Your task to perform on an android device: delete the emails in spam in the gmail app Image 0: 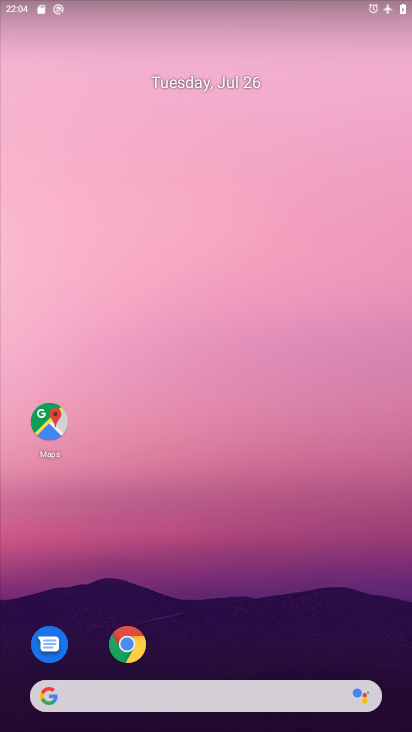
Step 0: drag from (287, 616) to (280, 184)
Your task to perform on an android device: delete the emails in spam in the gmail app Image 1: 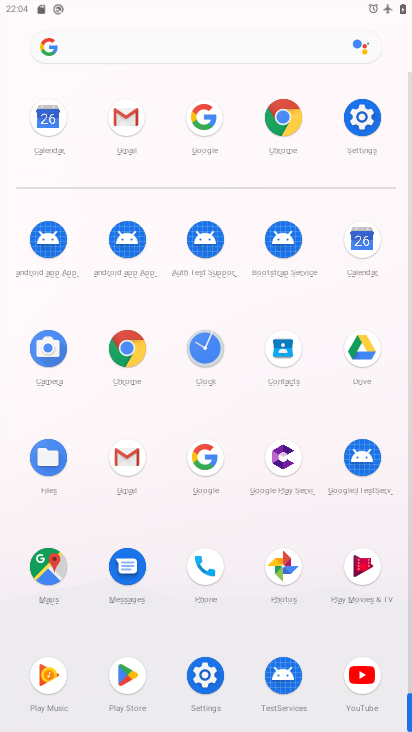
Step 1: click (122, 452)
Your task to perform on an android device: delete the emails in spam in the gmail app Image 2: 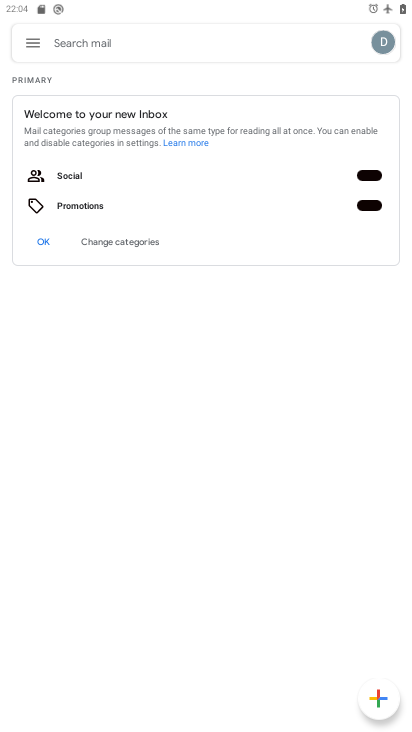
Step 2: click (29, 38)
Your task to perform on an android device: delete the emails in spam in the gmail app Image 3: 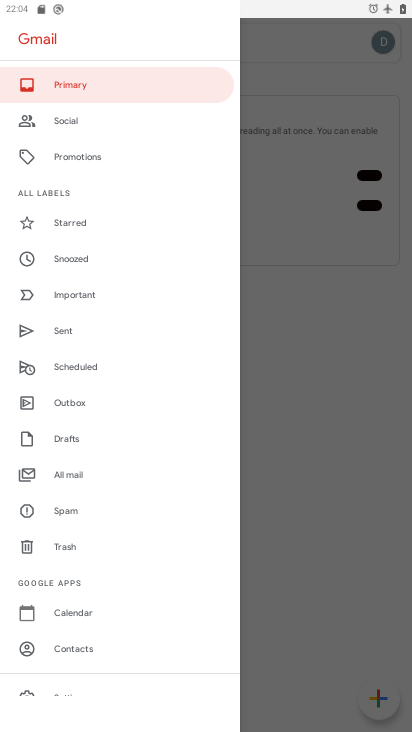
Step 3: click (68, 500)
Your task to perform on an android device: delete the emails in spam in the gmail app Image 4: 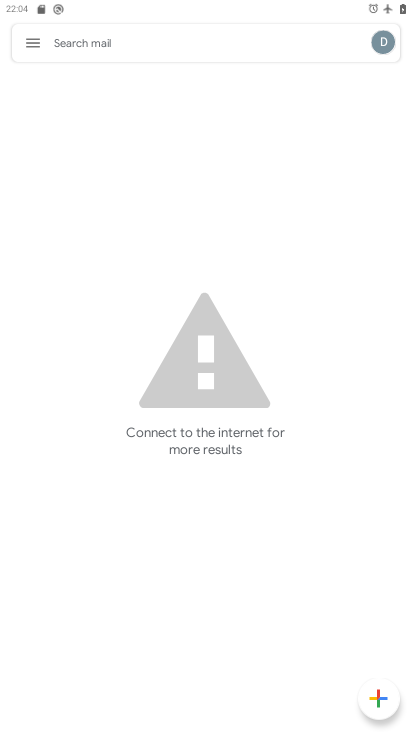
Step 4: task complete